Your task to perform on an android device: Do I have any events tomorrow? Image 0: 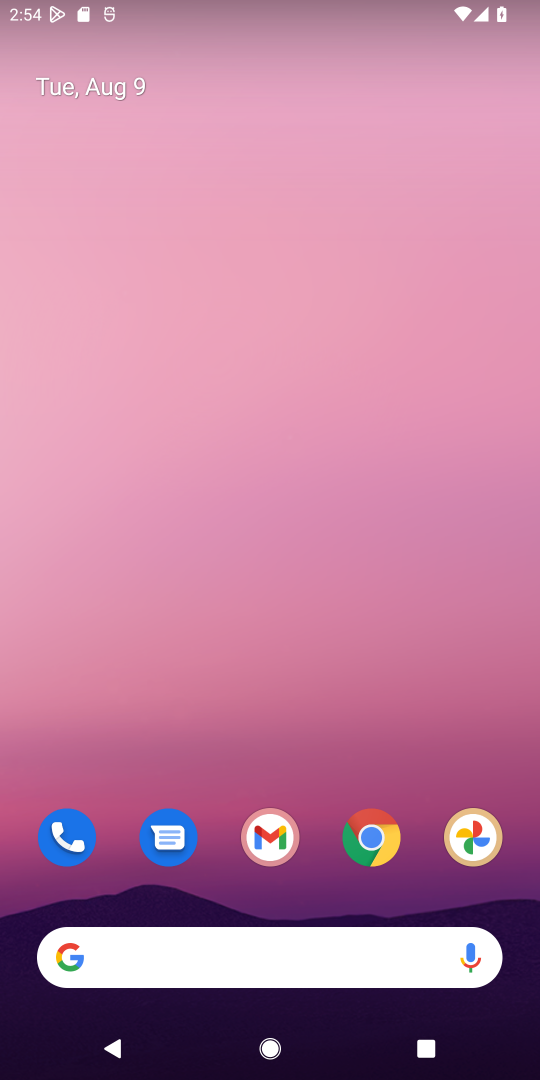
Step 0: drag from (325, 976) to (335, 236)
Your task to perform on an android device: Do I have any events tomorrow? Image 1: 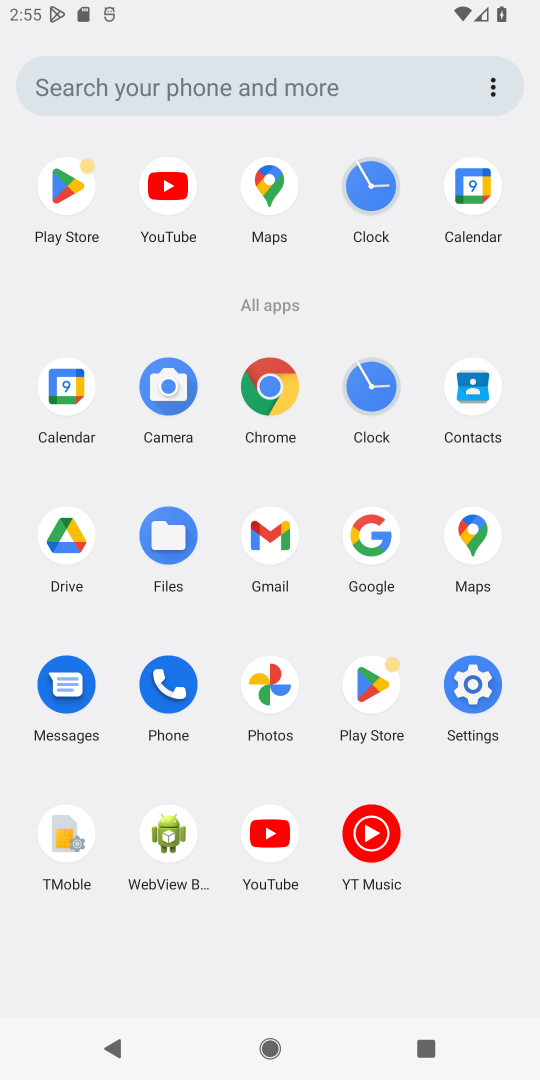
Step 1: click (260, 382)
Your task to perform on an android device: Do I have any events tomorrow? Image 2: 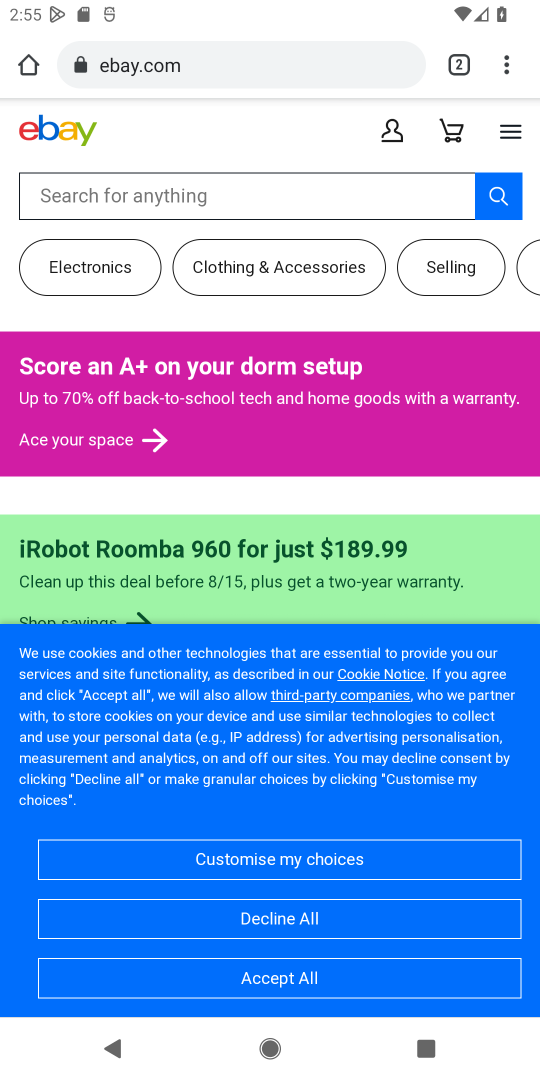
Step 2: click (512, 56)
Your task to perform on an android device: Do I have any events tomorrow? Image 3: 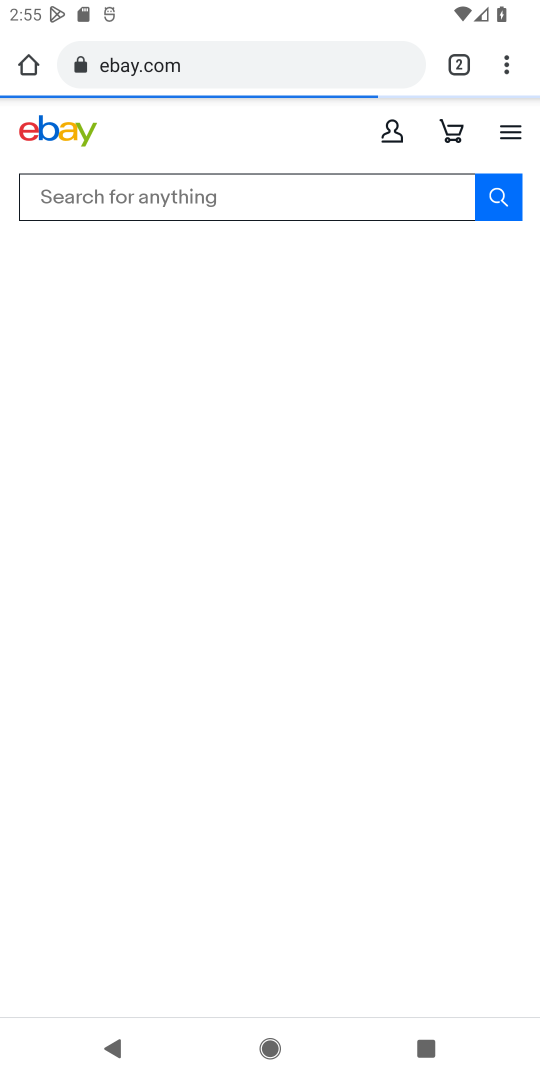
Step 3: click (512, 56)
Your task to perform on an android device: Do I have any events tomorrow? Image 4: 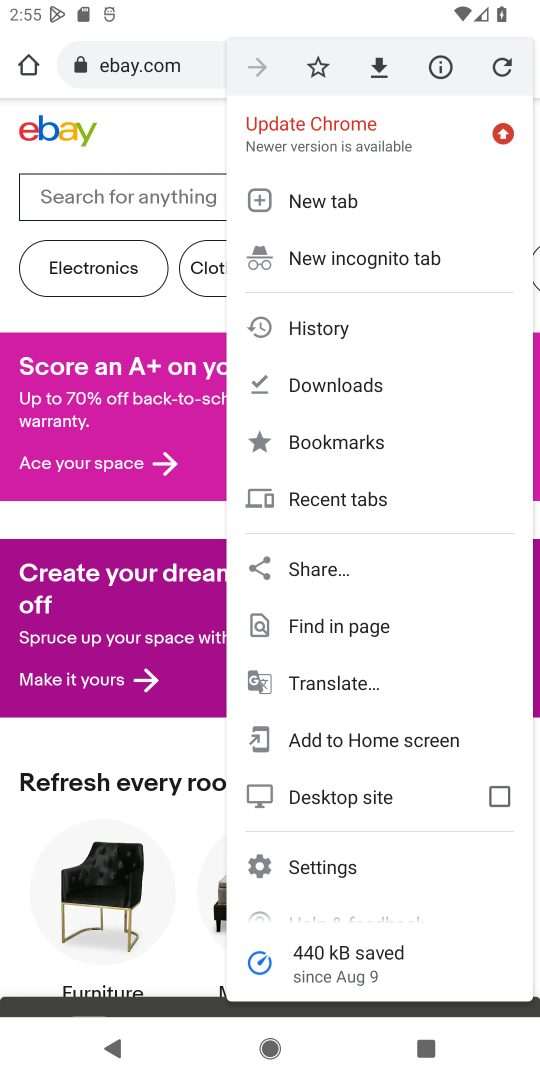
Step 4: click (325, 203)
Your task to perform on an android device: Do I have any events tomorrow? Image 5: 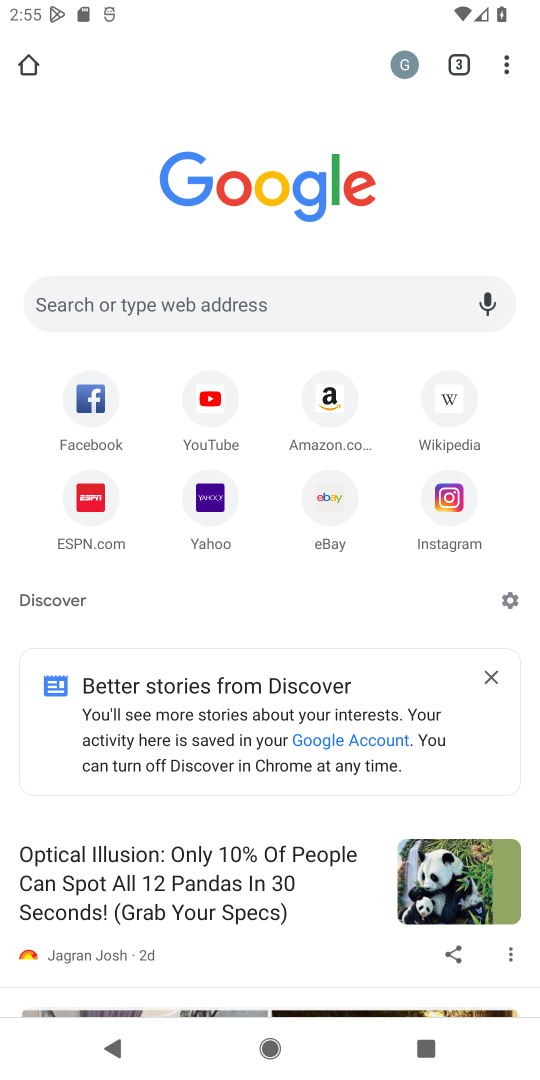
Step 5: click (280, 297)
Your task to perform on an android device: Do I have any events tomorrow? Image 6: 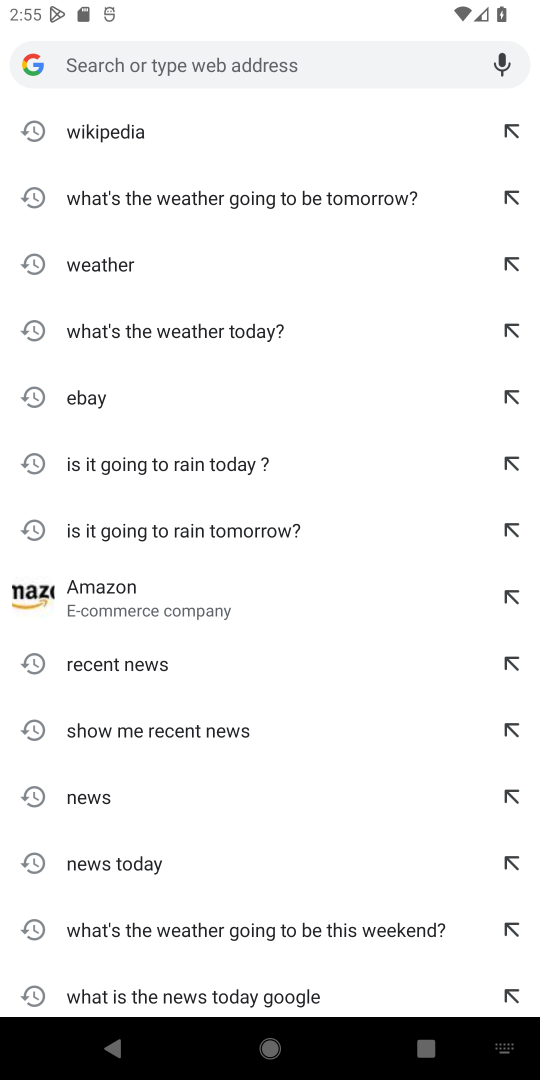
Step 6: type "Do I have any events tomorrow? "
Your task to perform on an android device: Do I have any events tomorrow? Image 7: 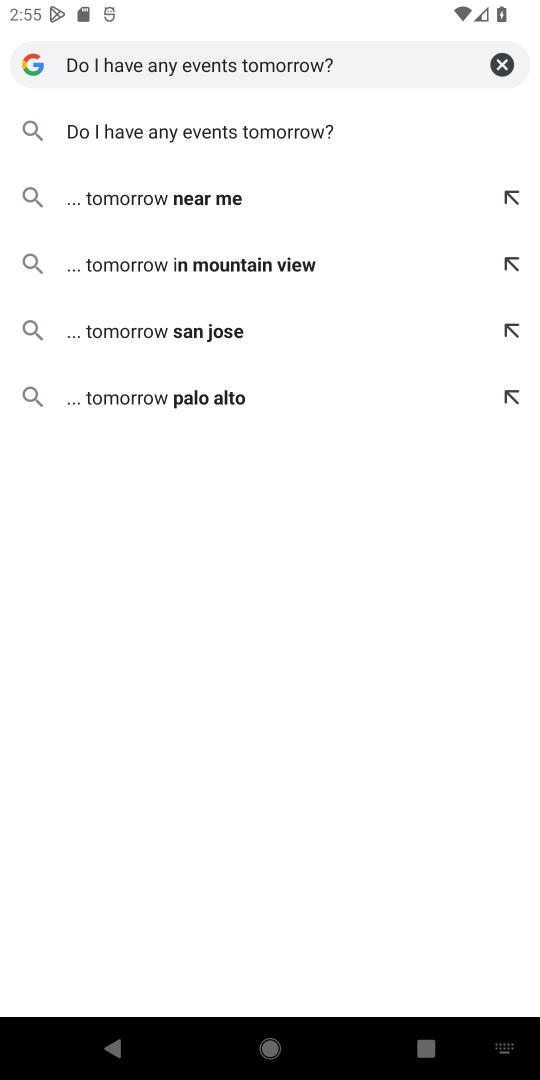
Step 7: click (181, 117)
Your task to perform on an android device: Do I have any events tomorrow? Image 8: 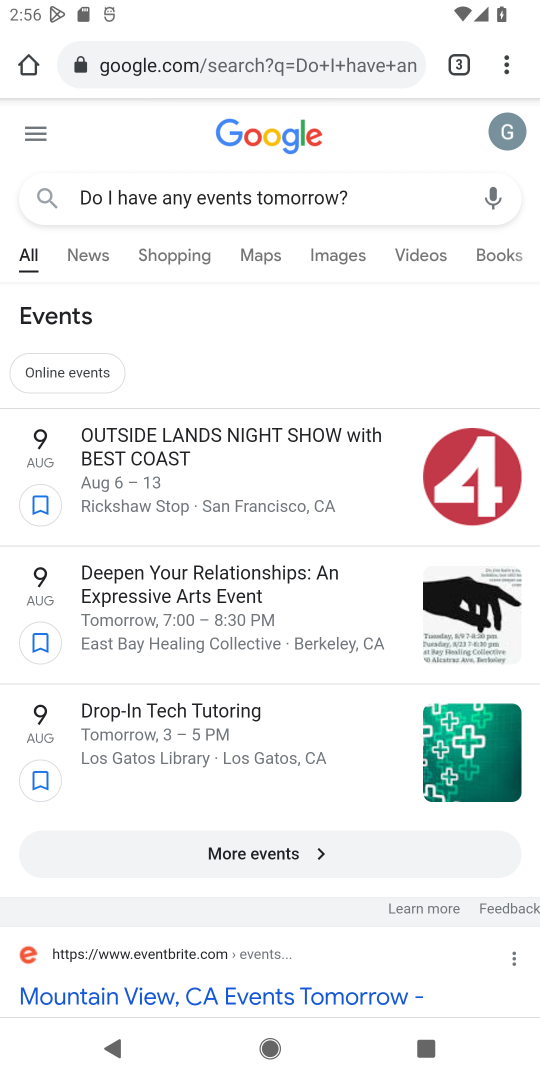
Step 8: task complete